Your task to perform on an android device: Toggle the flashlight Image 0: 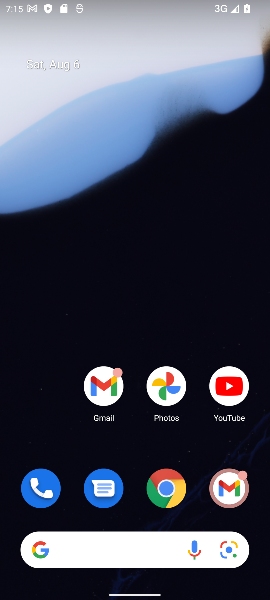
Step 0: drag from (126, 521) to (3, 72)
Your task to perform on an android device: Toggle the flashlight Image 1: 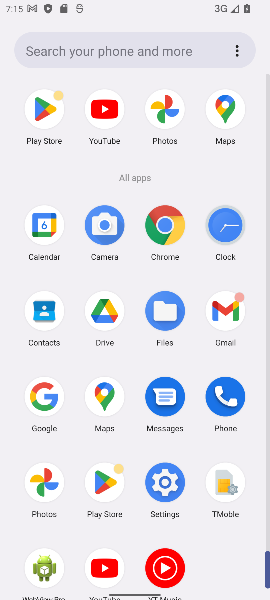
Step 1: click (166, 486)
Your task to perform on an android device: Toggle the flashlight Image 2: 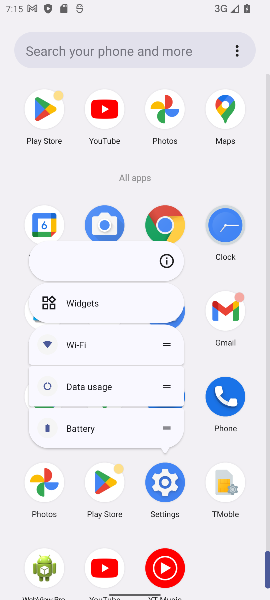
Step 2: click (168, 484)
Your task to perform on an android device: Toggle the flashlight Image 3: 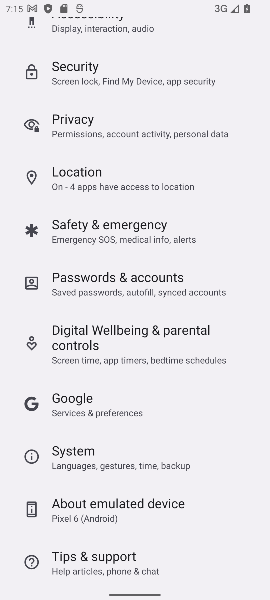
Step 3: task complete